Your task to perform on an android device: Open Google Chrome Image 0: 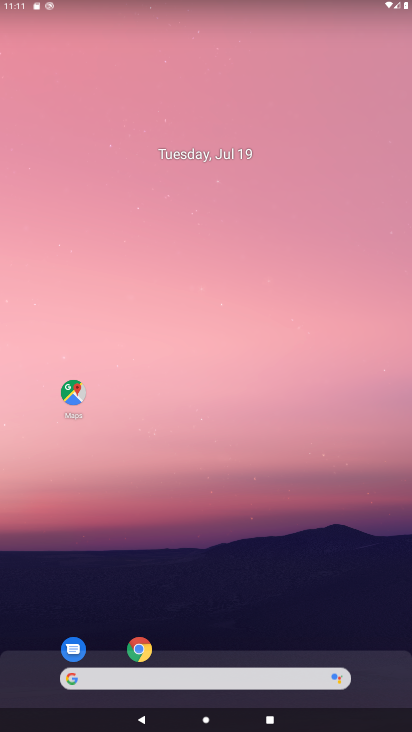
Step 0: click (144, 650)
Your task to perform on an android device: Open Google Chrome Image 1: 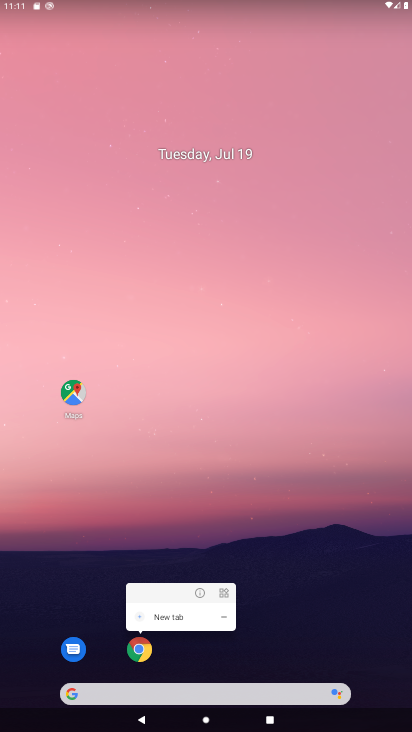
Step 1: click (144, 650)
Your task to perform on an android device: Open Google Chrome Image 2: 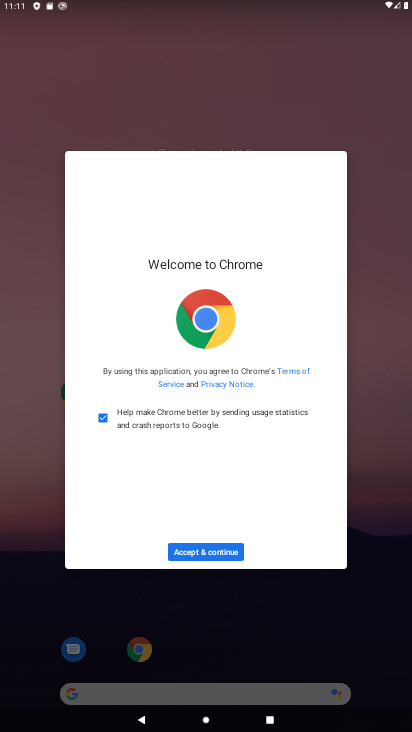
Step 2: click (213, 551)
Your task to perform on an android device: Open Google Chrome Image 3: 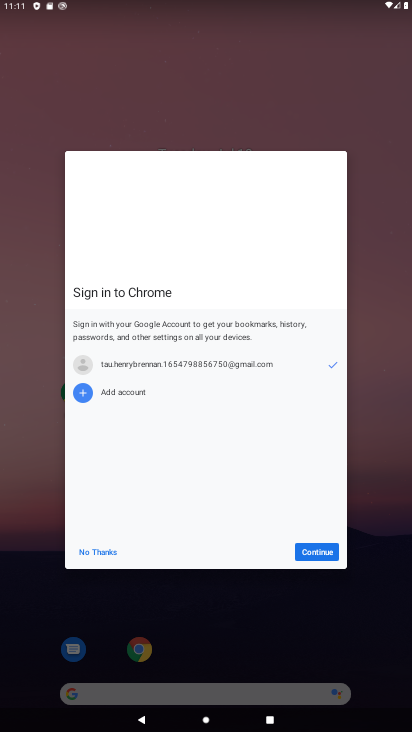
Step 3: click (305, 552)
Your task to perform on an android device: Open Google Chrome Image 4: 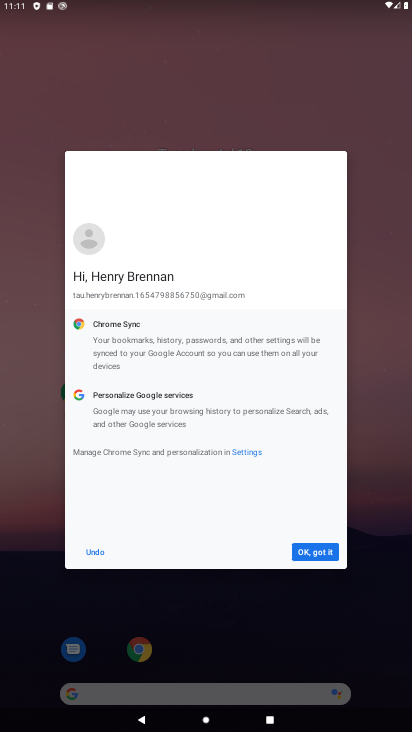
Step 4: click (306, 552)
Your task to perform on an android device: Open Google Chrome Image 5: 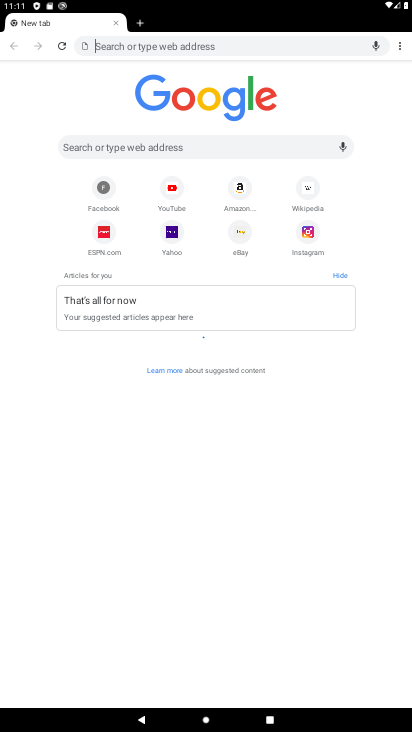
Step 5: task complete